Your task to perform on an android device: What's the weather today? Image 0: 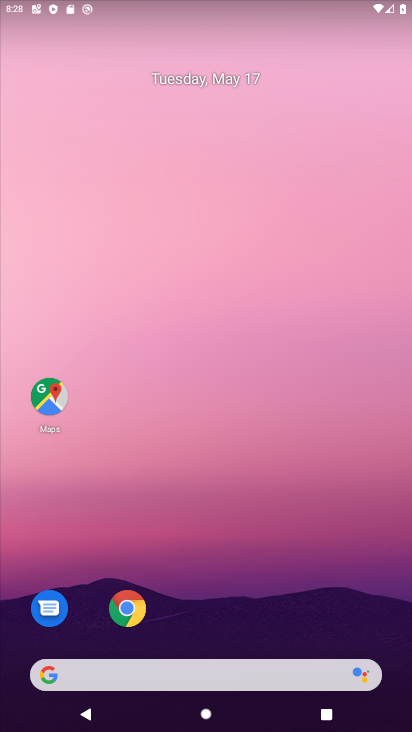
Step 0: click (204, 681)
Your task to perform on an android device: What's the weather today? Image 1: 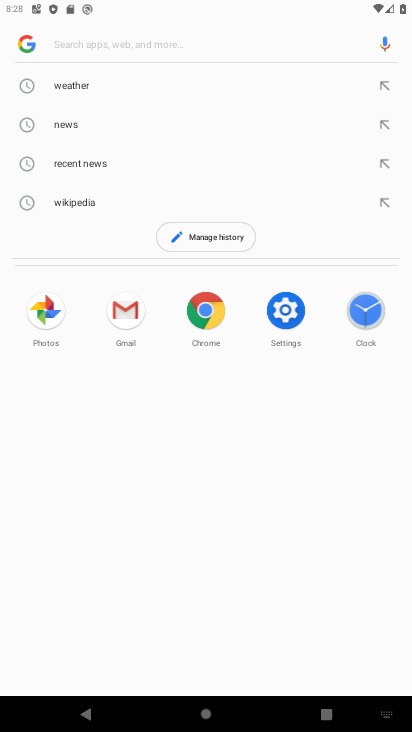
Step 1: click (31, 91)
Your task to perform on an android device: What's the weather today? Image 2: 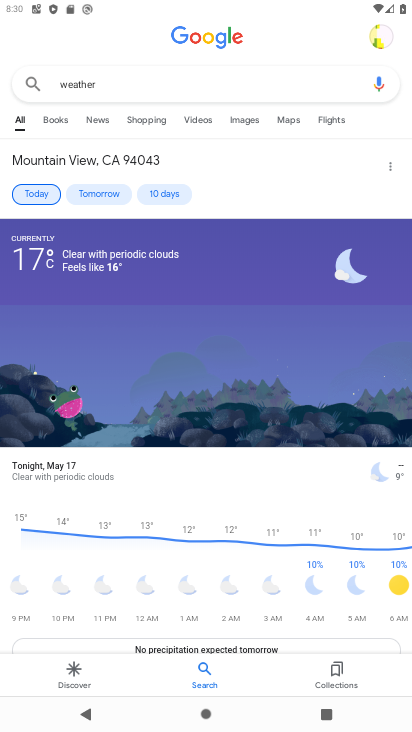
Step 2: task complete